Your task to perform on an android device: Open the calendar app, open the side menu, and click the "Day" option Image 0: 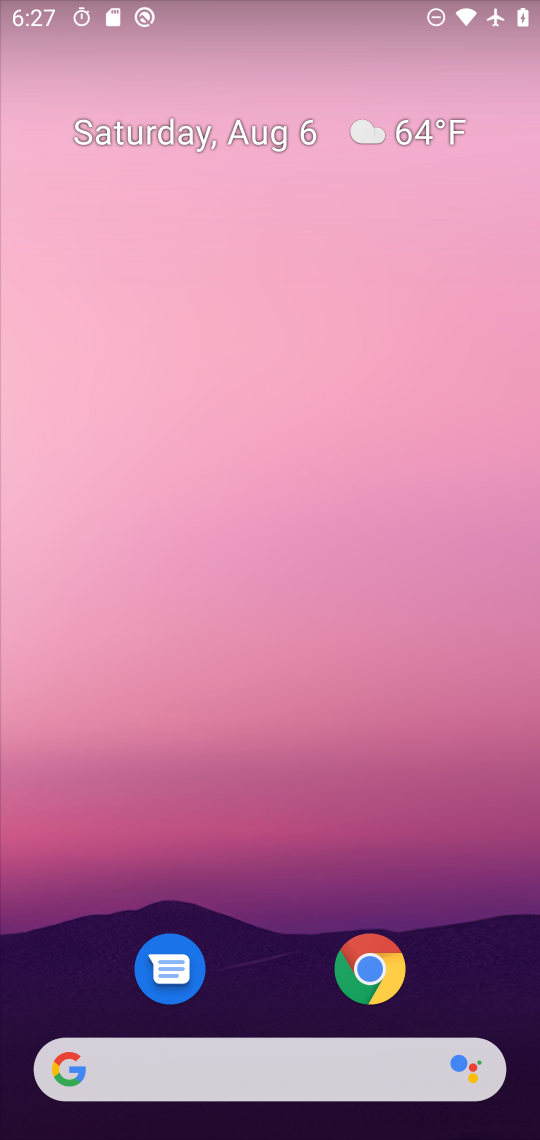
Step 0: press home button
Your task to perform on an android device: Open the calendar app, open the side menu, and click the "Day" option Image 1: 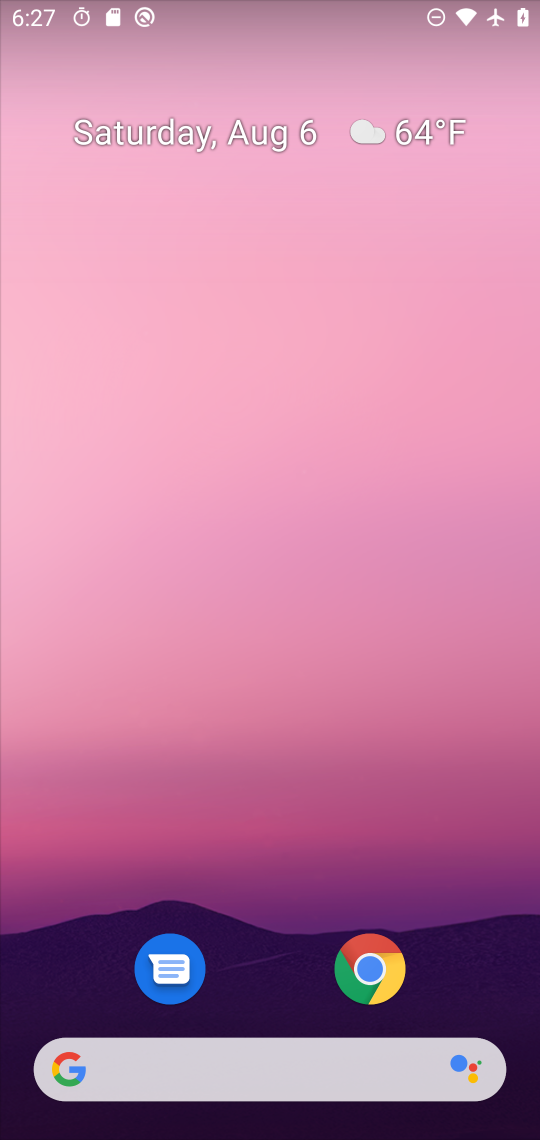
Step 1: drag from (288, 1006) to (399, 212)
Your task to perform on an android device: Open the calendar app, open the side menu, and click the "Day" option Image 2: 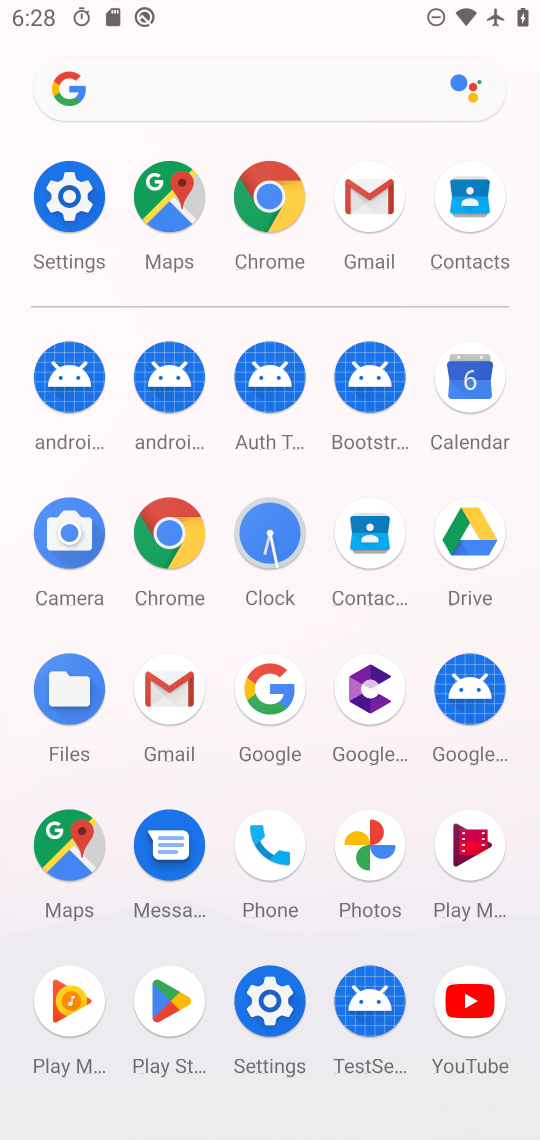
Step 2: click (473, 381)
Your task to perform on an android device: Open the calendar app, open the side menu, and click the "Day" option Image 3: 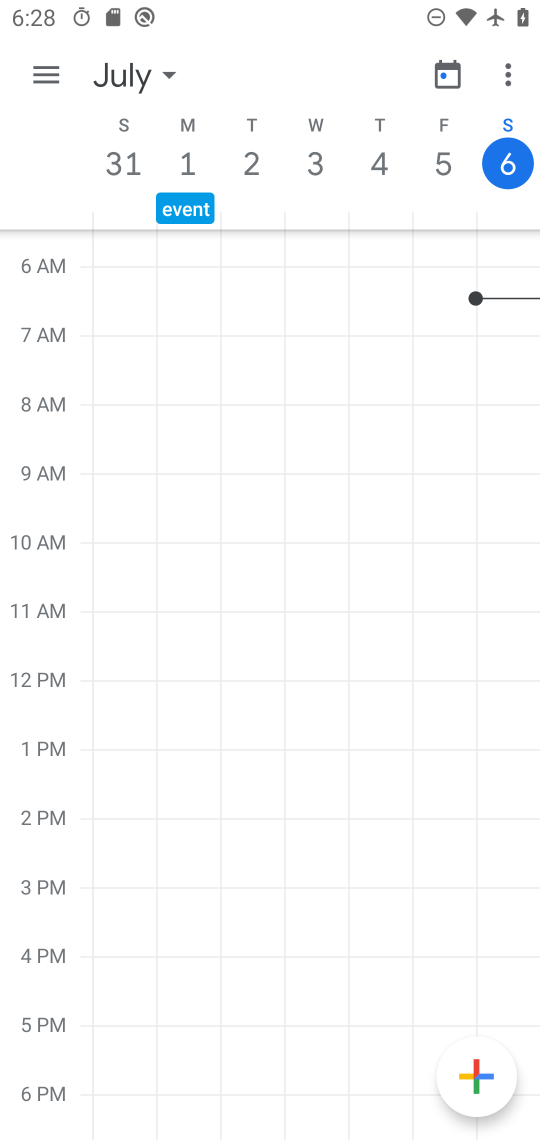
Step 3: click (34, 70)
Your task to perform on an android device: Open the calendar app, open the side menu, and click the "Day" option Image 4: 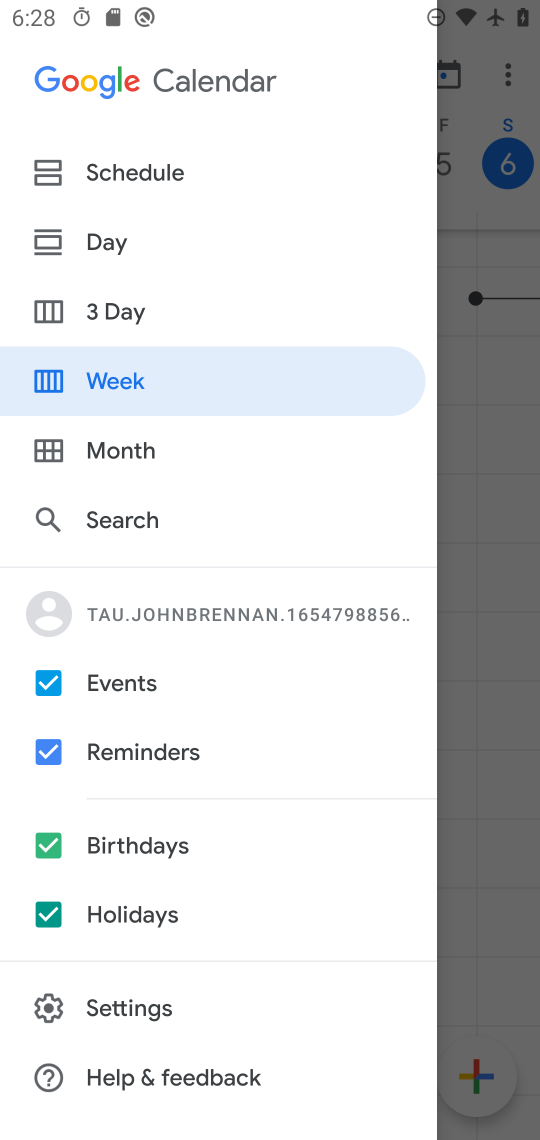
Step 4: click (103, 242)
Your task to perform on an android device: Open the calendar app, open the side menu, and click the "Day" option Image 5: 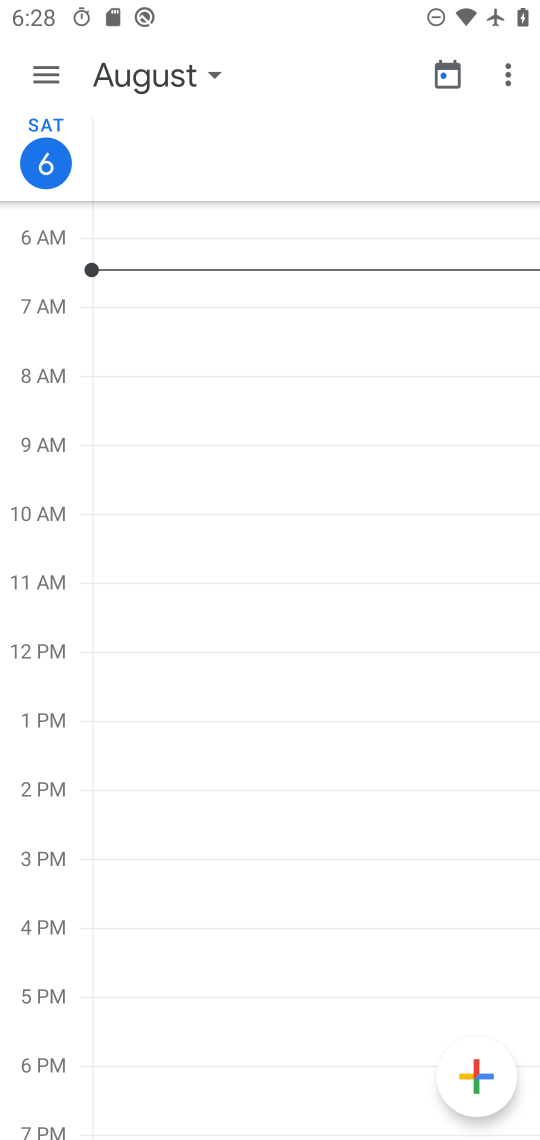
Step 5: task complete